Your task to perform on an android device: search for starred emails in the gmail app Image 0: 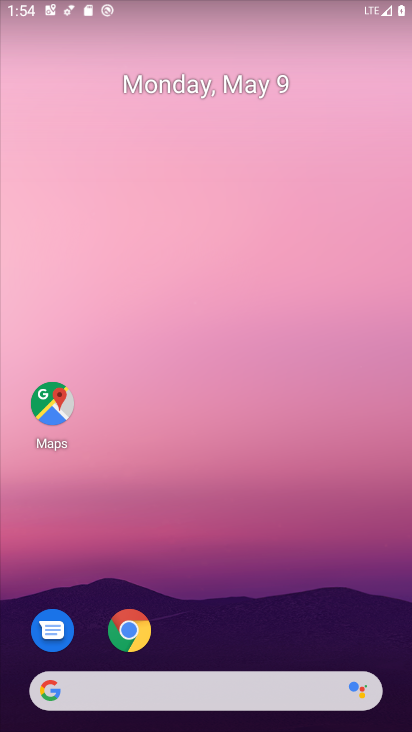
Step 0: drag from (281, 588) to (365, 64)
Your task to perform on an android device: search for starred emails in the gmail app Image 1: 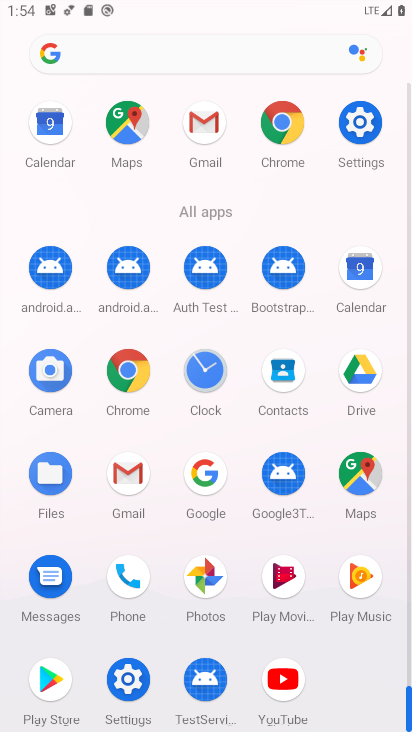
Step 1: click (146, 473)
Your task to perform on an android device: search for starred emails in the gmail app Image 2: 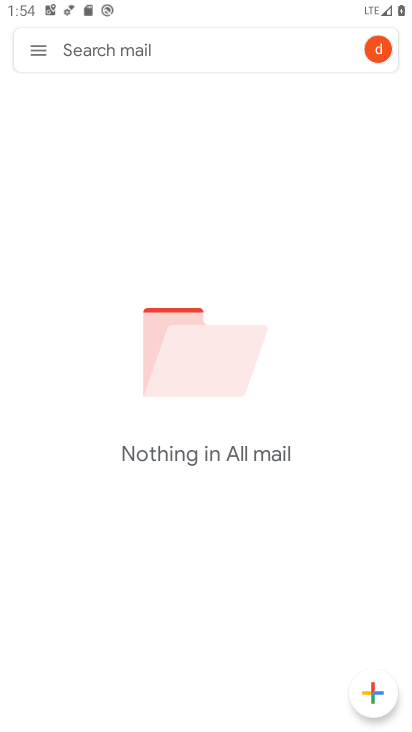
Step 2: click (38, 47)
Your task to perform on an android device: search for starred emails in the gmail app Image 3: 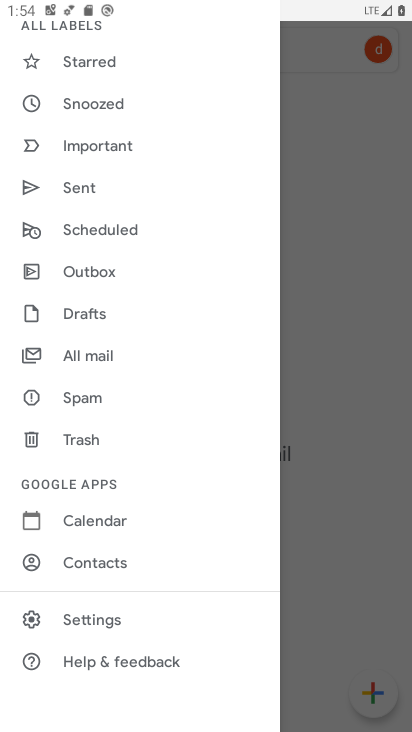
Step 3: click (124, 62)
Your task to perform on an android device: search for starred emails in the gmail app Image 4: 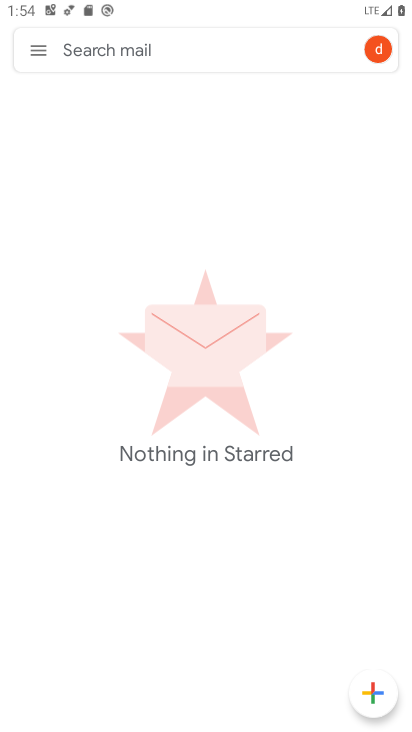
Step 4: task complete